Your task to perform on an android device: Open battery settings Image 0: 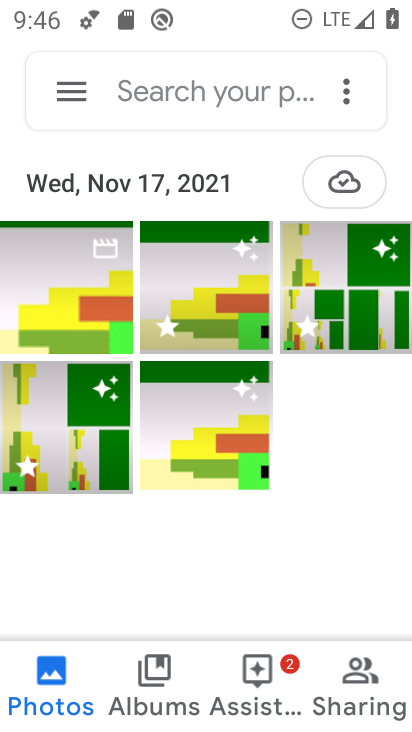
Step 0: press home button
Your task to perform on an android device: Open battery settings Image 1: 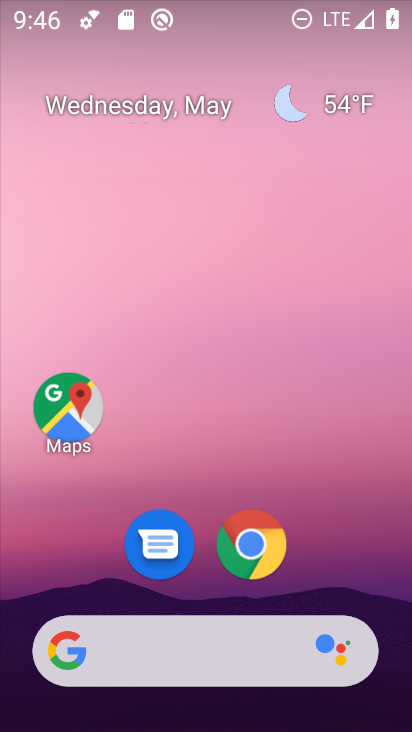
Step 1: drag from (204, 581) to (236, 300)
Your task to perform on an android device: Open battery settings Image 2: 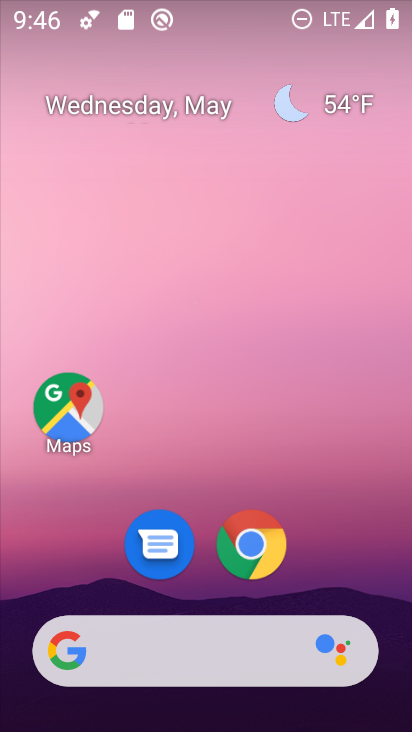
Step 2: drag from (209, 588) to (267, 176)
Your task to perform on an android device: Open battery settings Image 3: 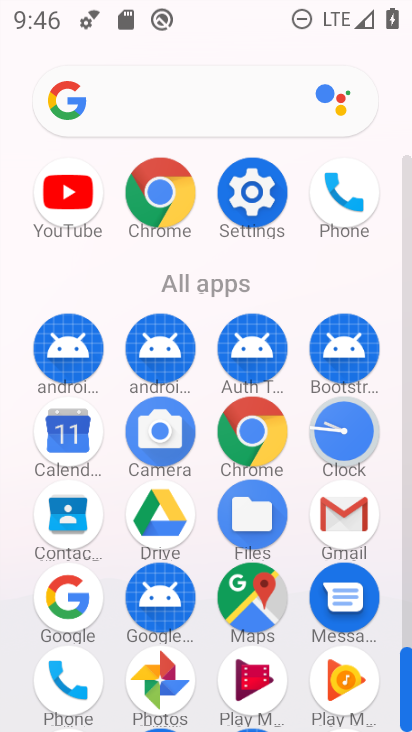
Step 3: click (232, 181)
Your task to perform on an android device: Open battery settings Image 4: 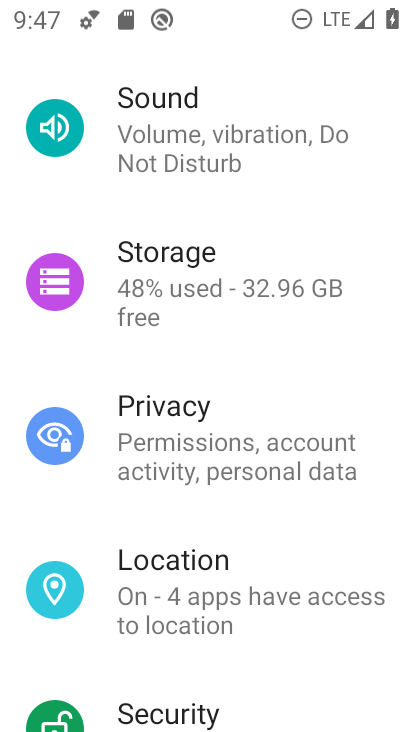
Step 4: drag from (203, 568) to (267, 228)
Your task to perform on an android device: Open battery settings Image 5: 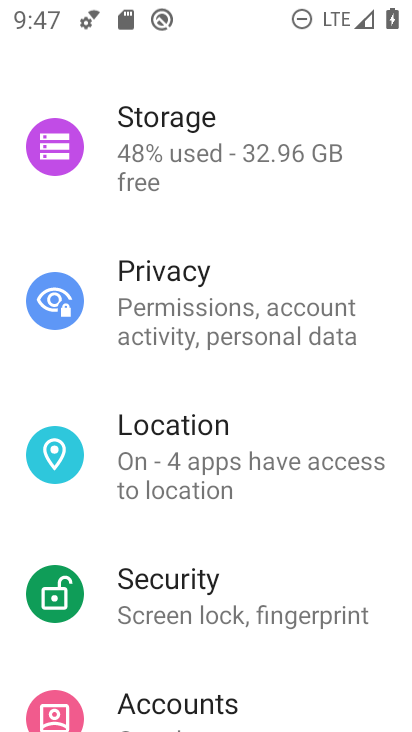
Step 5: drag from (237, 662) to (265, 356)
Your task to perform on an android device: Open battery settings Image 6: 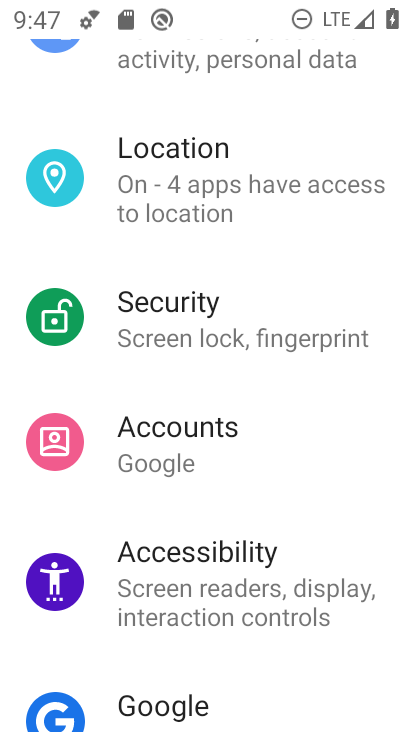
Step 6: drag from (252, 82) to (131, 579)
Your task to perform on an android device: Open battery settings Image 7: 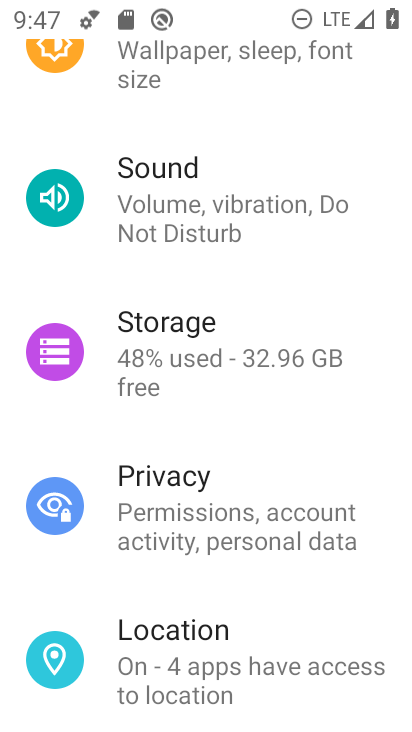
Step 7: drag from (209, 336) to (225, 720)
Your task to perform on an android device: Open battery settings Image 8: 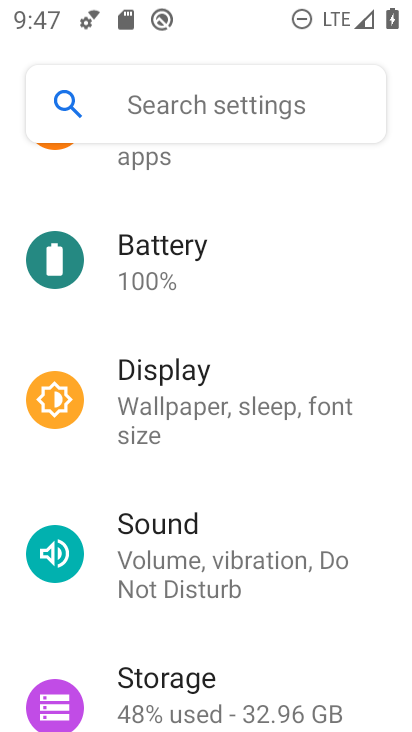
Step 8: drag from (282, 188) to (243, 696)
Your task to perform on an android device: Open battery settings Image 9: 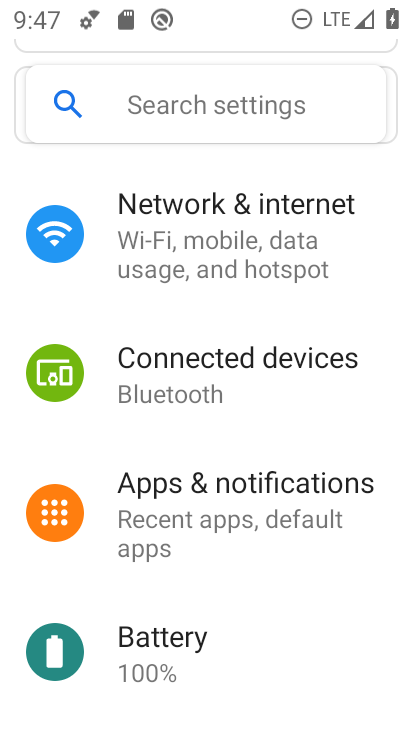
Step 9: click (198, 650)
Your task to perform on an android device: Open battery settings Image 10: 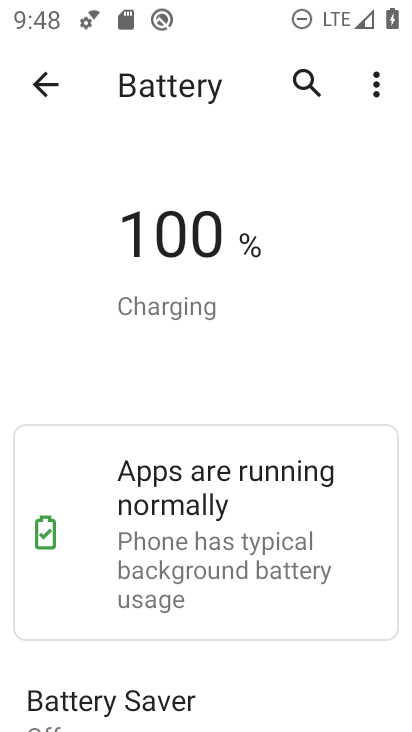
Step 10: task complete